Your task to perform on an android device: Go to settings Image 0: 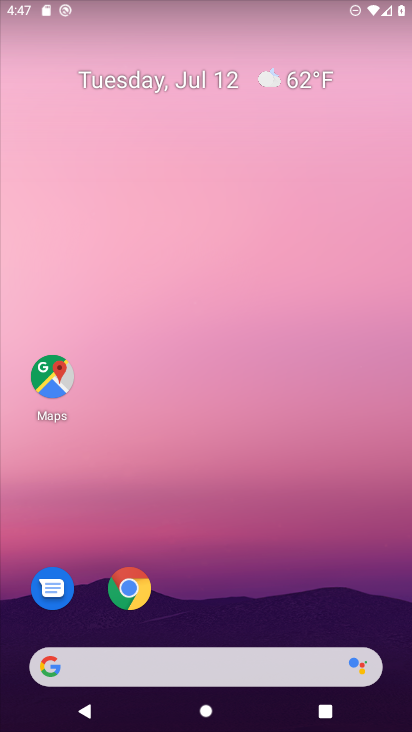
Step 0: drag from (201, 605) to (331, 72)
Your task to perform on an android device: Go to settings Image 1: 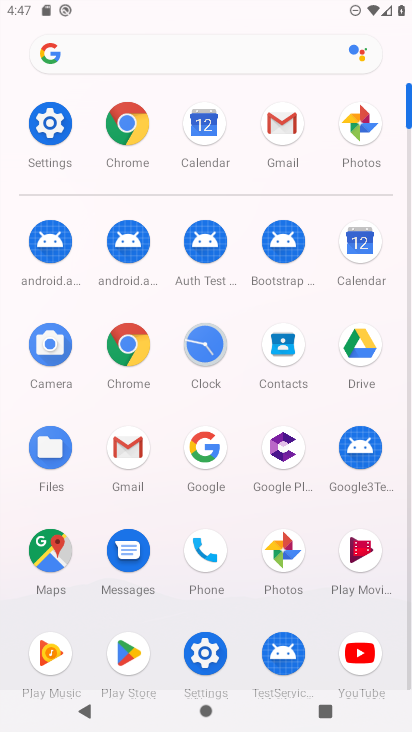
Step 1: click (46, 135)
Your task to perform on an android device: Go to settings Image 2: 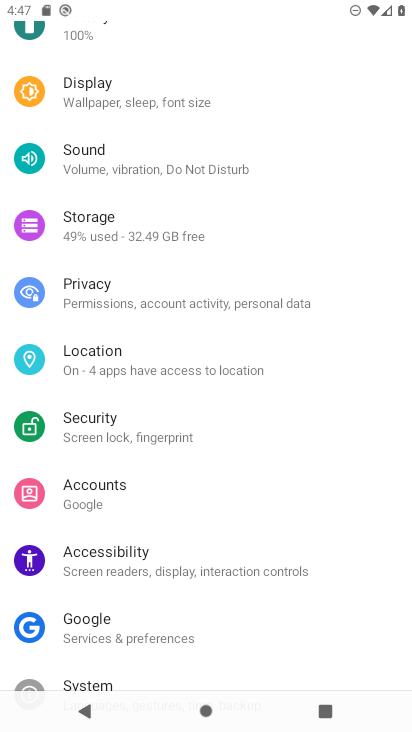
Step 2: task complete